Your task to perform on an android device: What's on my calendar today? Image 0: 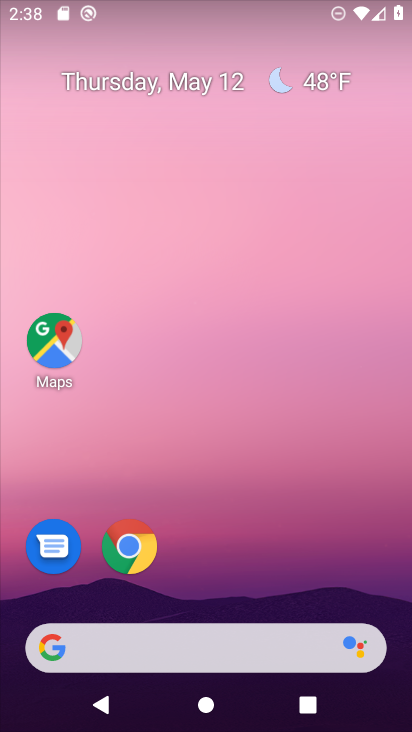
Step 0: drag from (270, 658) to (271, 228)
Your task to perform on an android device: What's on my calendar today? Image 1: 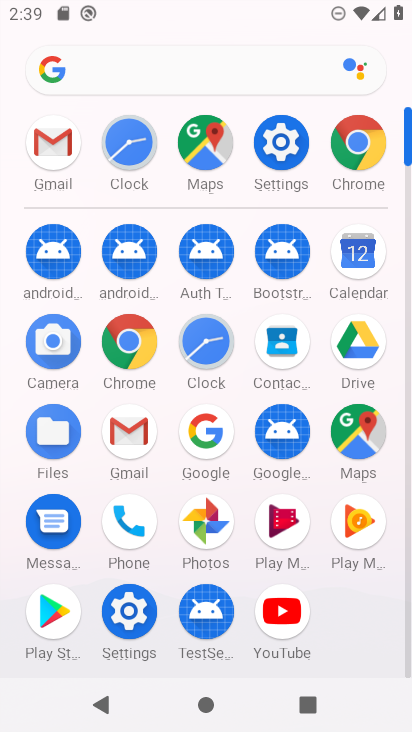
Step 1: click (340, 260)
Your task to perform on an android device: What's on my calendar today? Image 2: 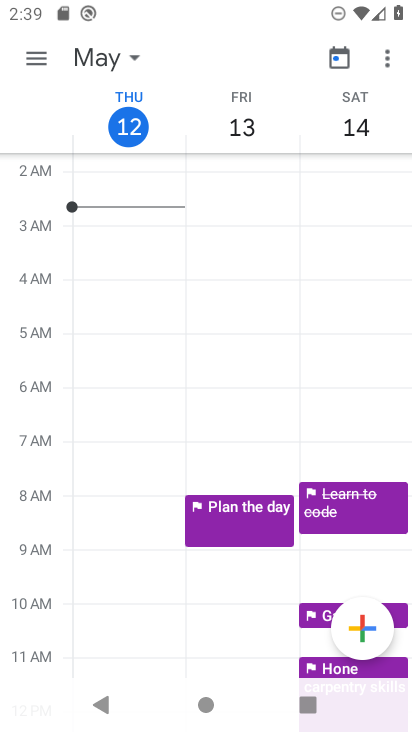
Step 2: click (39, 60)
Your task to perform on an android device: What's on my calendar today? Image 3: 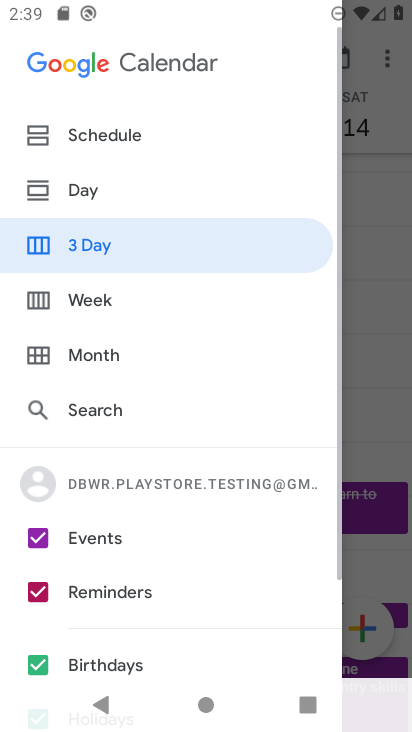
Step 3: click (119, 356)
Your task to perform on an android device: What's on my calendar today? Image 4: 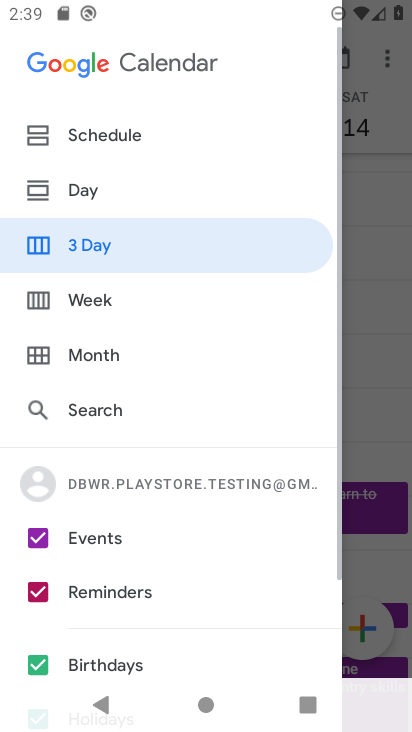
Step 4: click (113, 358)
Your task to perform on an android device: What's on my calendar today? Image 5: 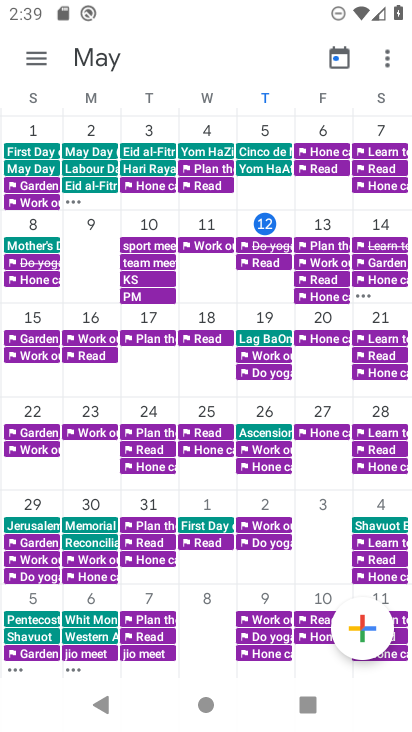
Step 5: click (279, 233)
Your task to perform on an android device: What's on my calendar today? Image 6: 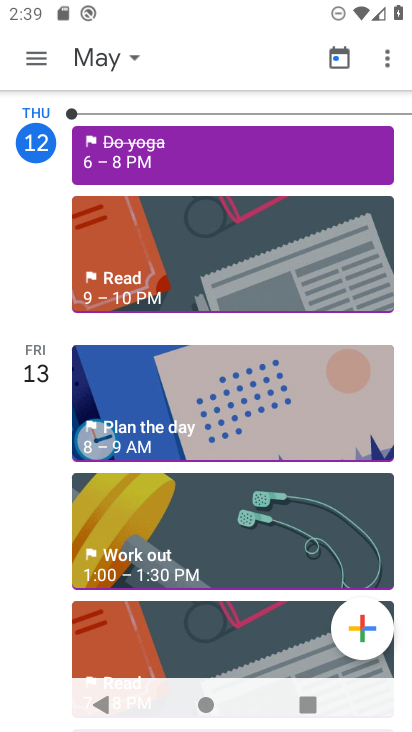
Step 6: task complete